Your task to perform on an android device: Go to privacy settings Image 0: 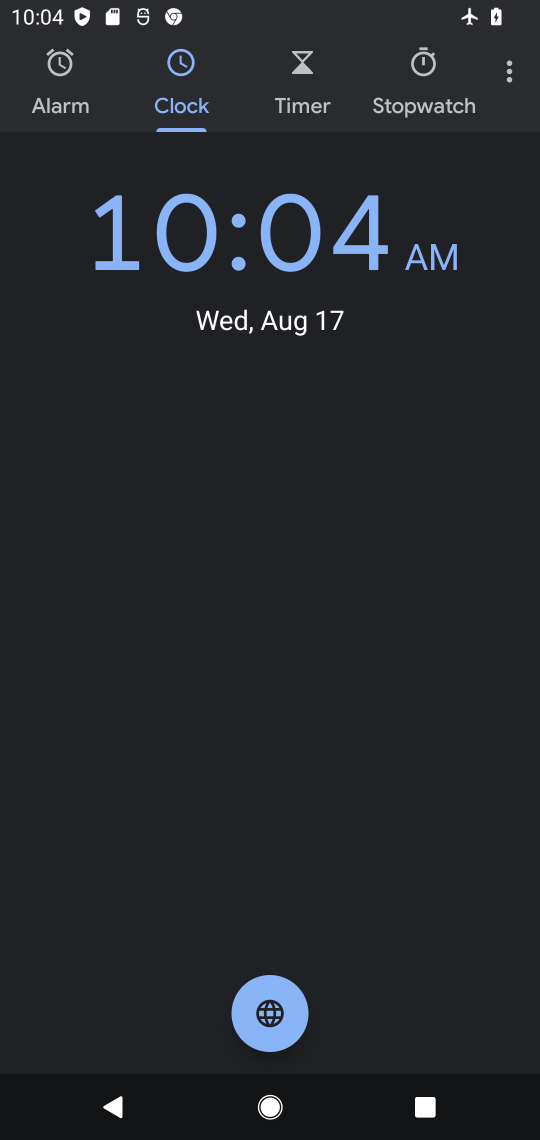
Step 0: press home button
Your task to perform on an android device: Go to privacy settings Image 1: 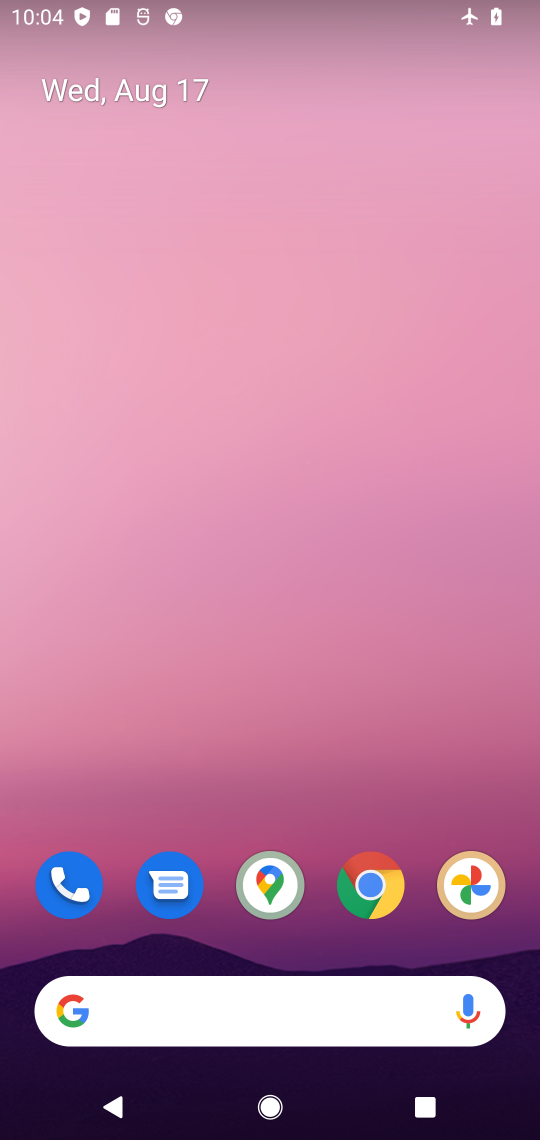
Step 1: drag from (415, 937) to (373, 282)
Your task to perform on an android device: Go to privacy settings Image 2: 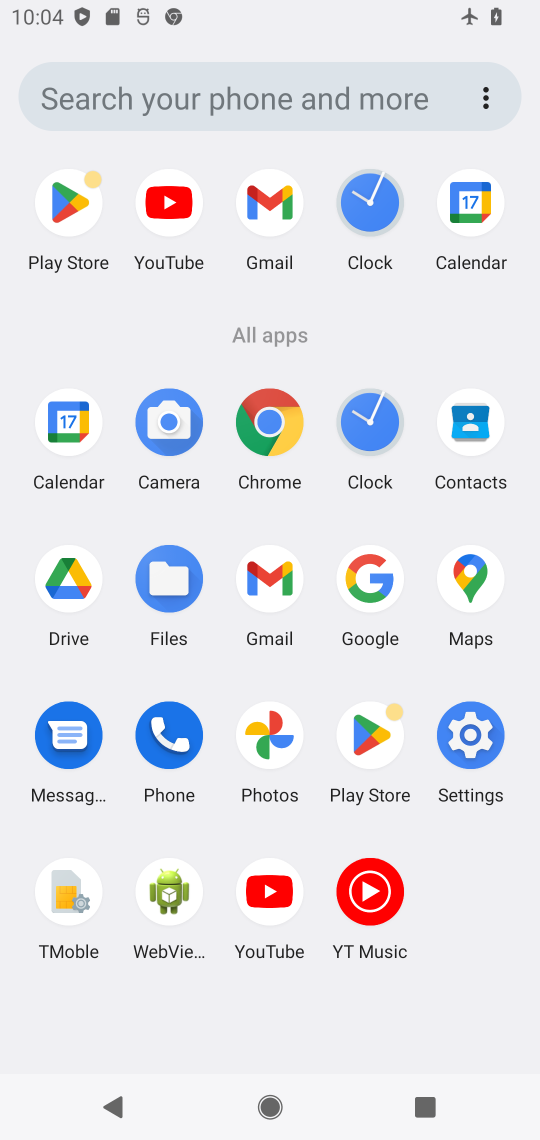
Step 2: click (470, 736)
Your task to perform on an android device: Go to privacy settings Image 3: 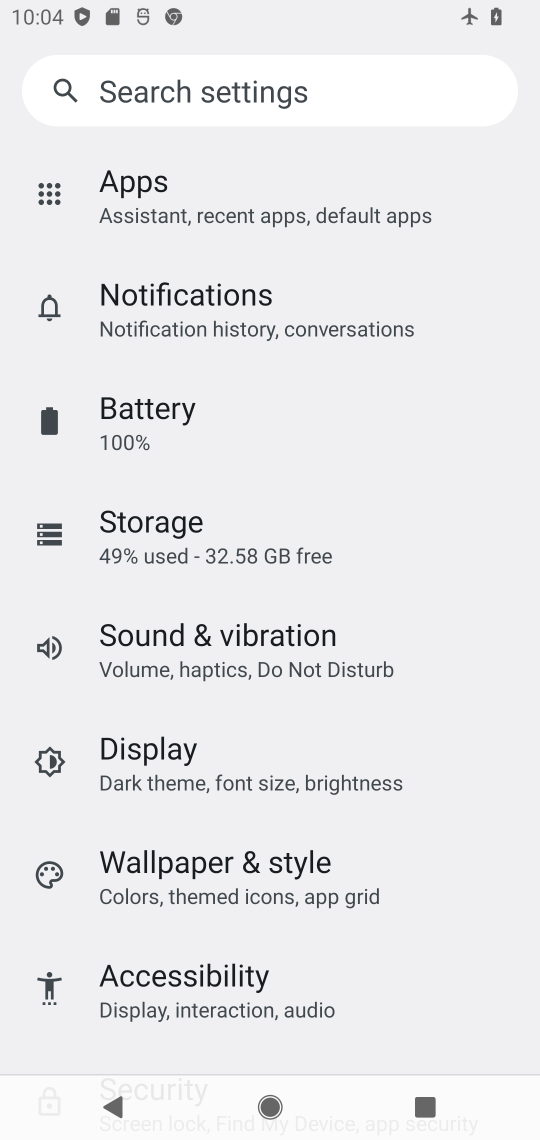
Step 3: drag from (475, 850) to (441, 297)
Your task to perform on an android device: Go to privacy settings Image 4: 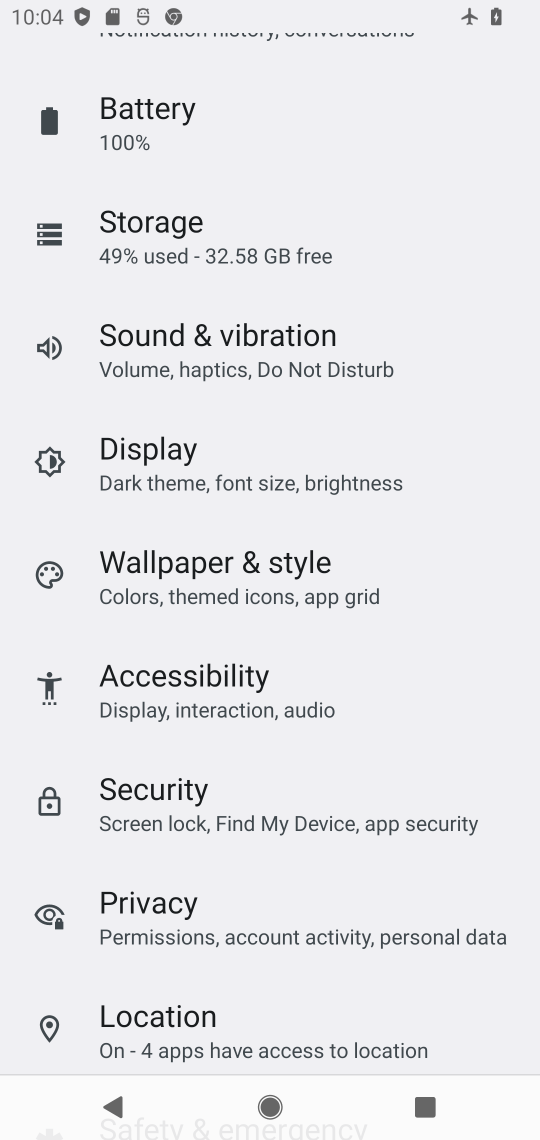
Step 4: drag from (455, 753) to (439, 280)
Your task to perform on an android device: Go to privacy settings Image 5: 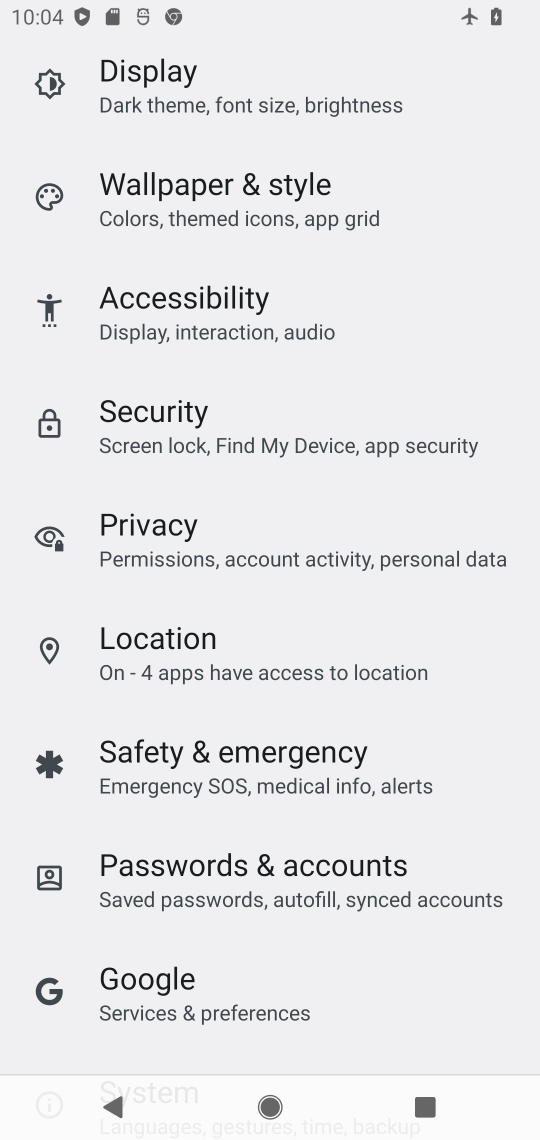
Step 5: click (162, 537)
Your task to perform on an android device: Go to privacy settings Image 6: 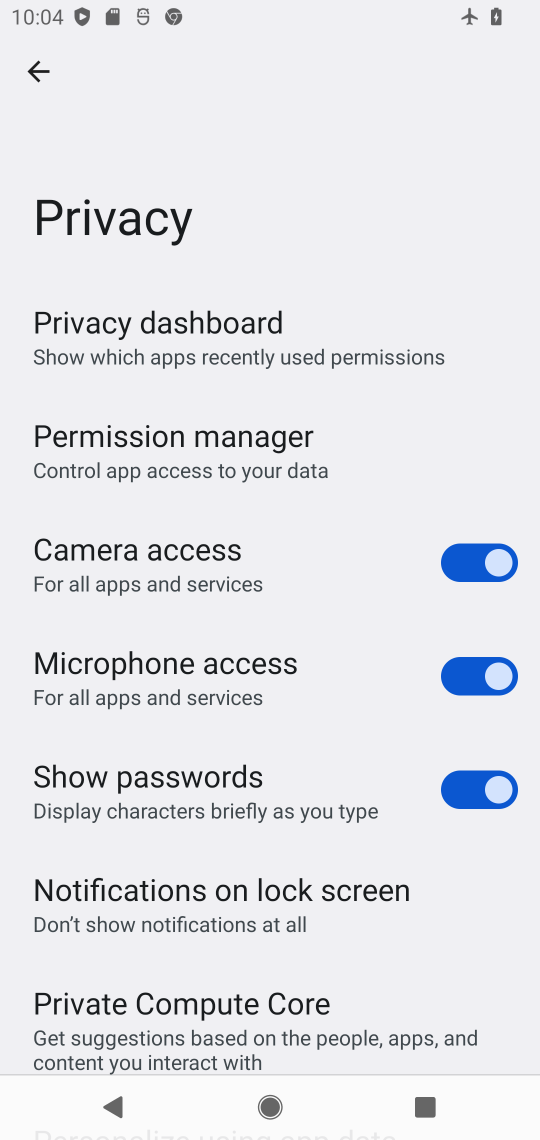
Step 6: task complete